Your task to perform on an android device: toggle improve location accuracy Image 0: 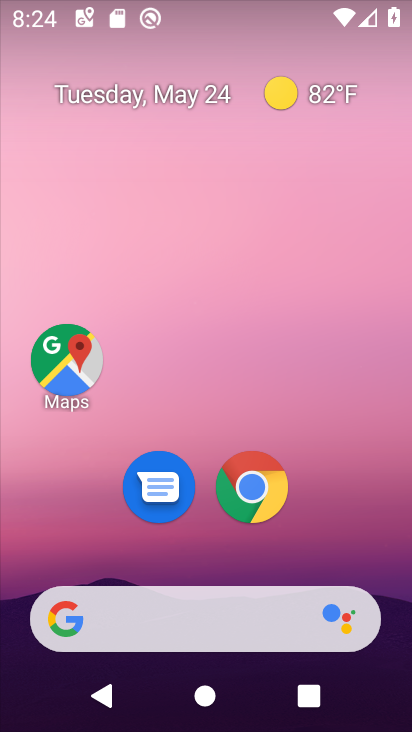
Step 0: press home button
Your task to perform on an android device: toggle improve location accuracy Image 1: 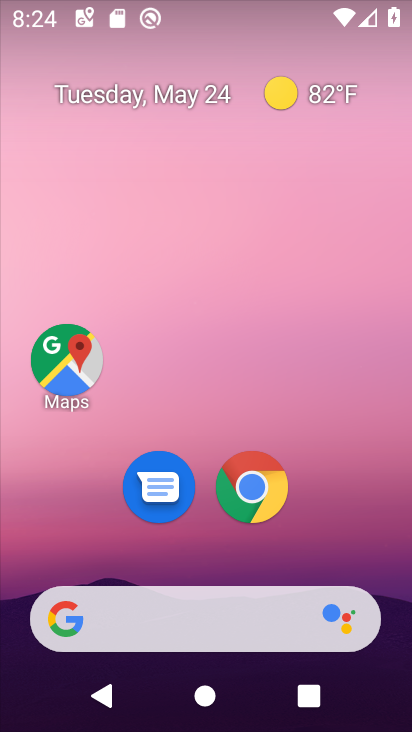
Step 1: drag from (340, 548) to (342, 85)
Your task to perform on an android device: toggle improve location accuracy Image 2: 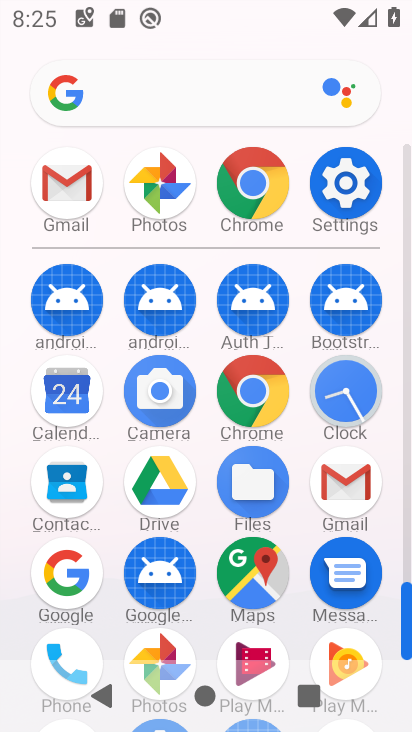
Step 2: click (334, 198)
Your task to perform on an android device: toggle improve location accuracy Image 3: 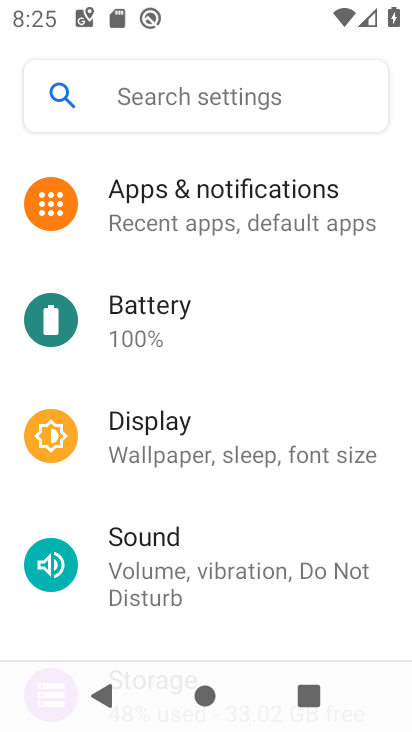
Step 3: drag from (252, 615) to (293, 183)
Your task to perform on an android device: toggle improve location accuracy Image 4: 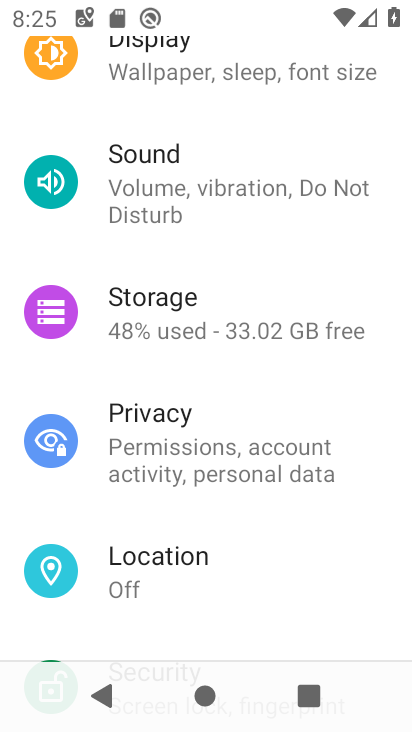
Step 4: click (244, 567)
Your task to perform on an android device: toggle improve location accuracy Image 5: 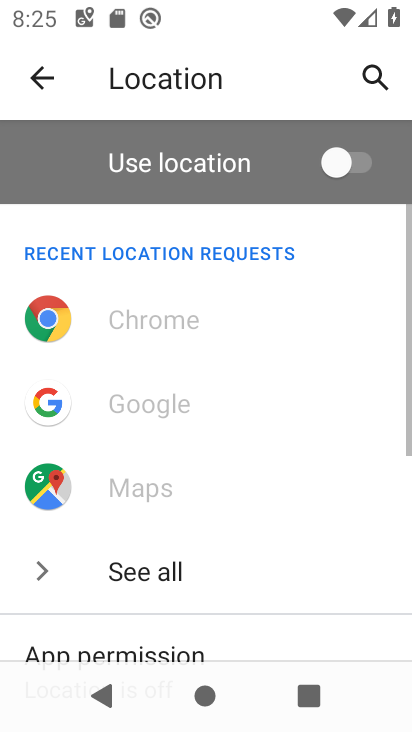
Step 5: drag from (246, 572) to (271, 266)
Your task to perform on an android device: toggle improve location accuracy Image 6: 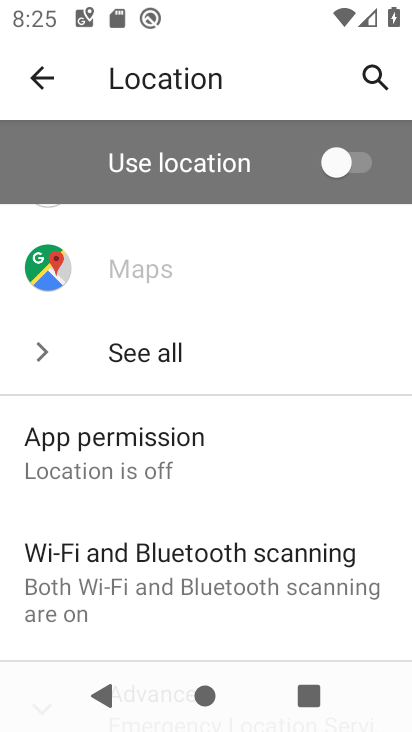
Step 6: drag from (179, 572) to (226, 250)
Your task to perform on an android device: toggle improve location accuracy Image 7: 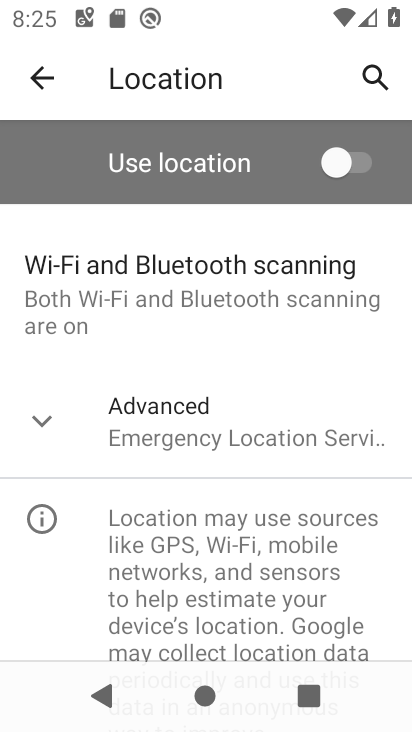
Step 7: click (188, 436)
Your task to perform on an android device: toggle improve location accuracy Image 8: 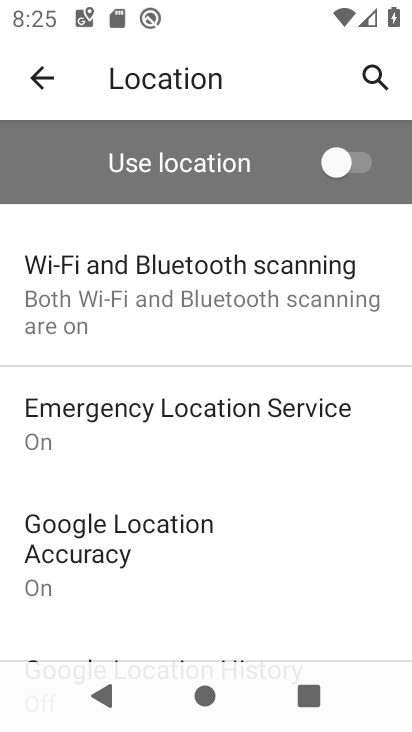
Step 8: drag from (191, 582) to (195, 264)
Your task to perform on an android device: toggle improve location accuracy Image 9: 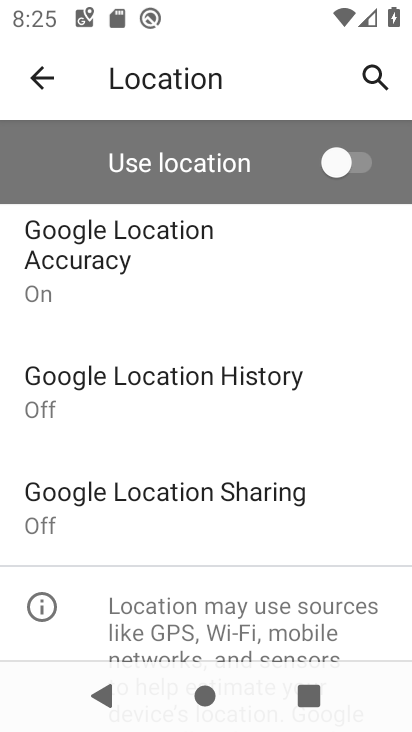
Step 9: click (145, 271)
Your task to perform on an android device: toggle improve location accuracy Image 10: 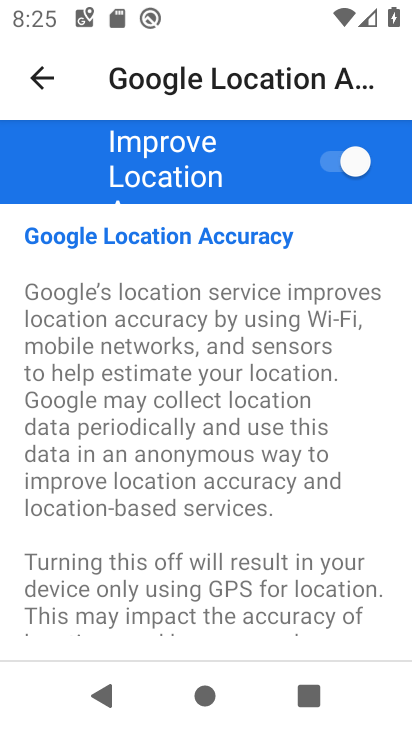
Step 10: click (327, 159)
Your task to perform on an android device: toggle improve location accuracy Image 11: 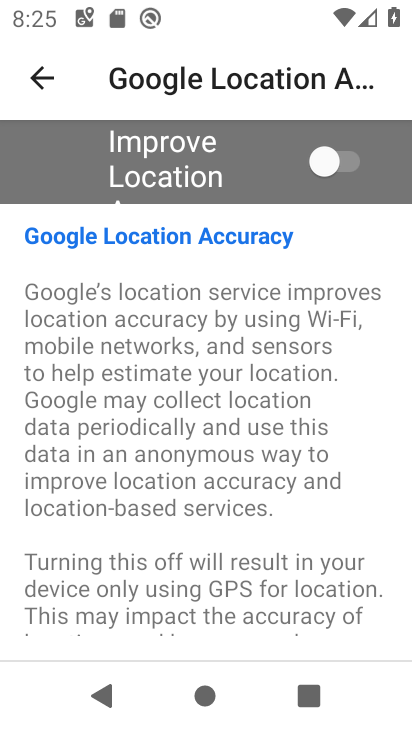
Step 11: task complete